Your task to perform on an android device: Go to Google Image 0: 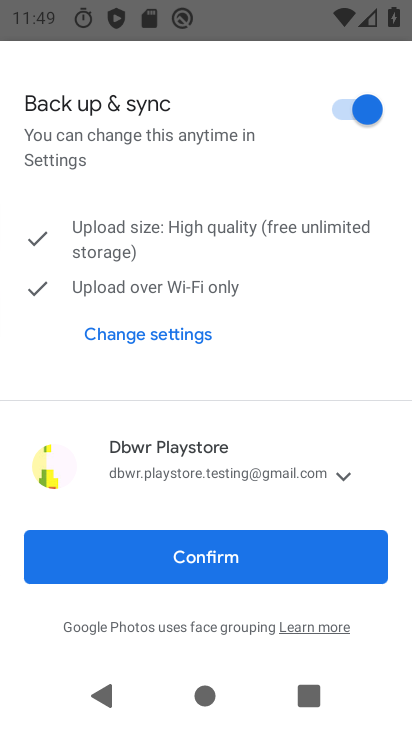
Step 0: press home button
Your task to perform on an android device: Go to Google Image 1: 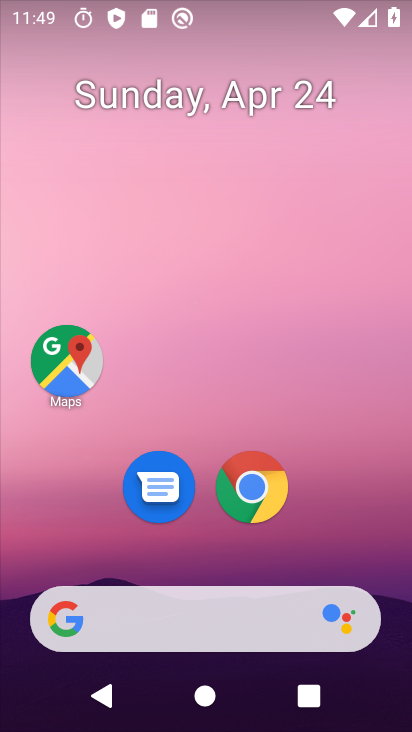
Step 1: click (107, 637)
Your task to perform on an android device: Go to Google Image 2: 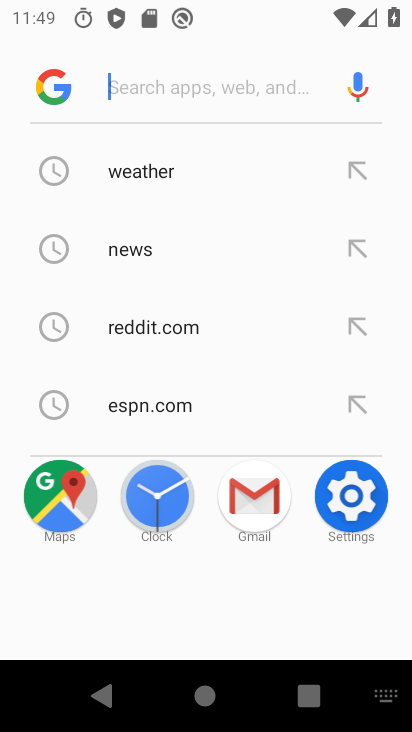
Step 2: type "google"
Your task to perform on an android device: Go to Google Image 3: 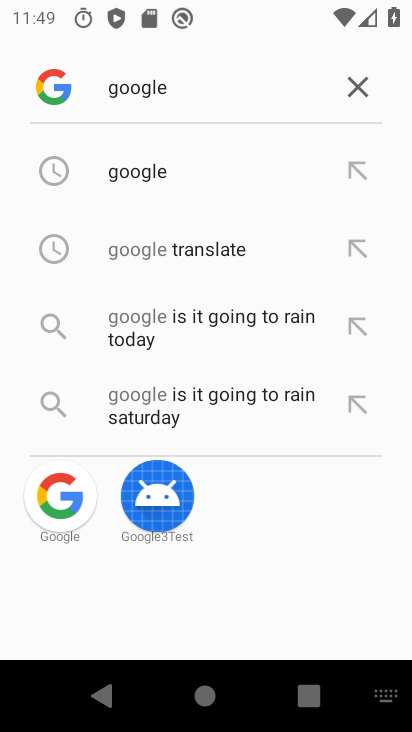
Step 3: click (74, 497)
Your task to perform on an android device: Go to Google Image 4: 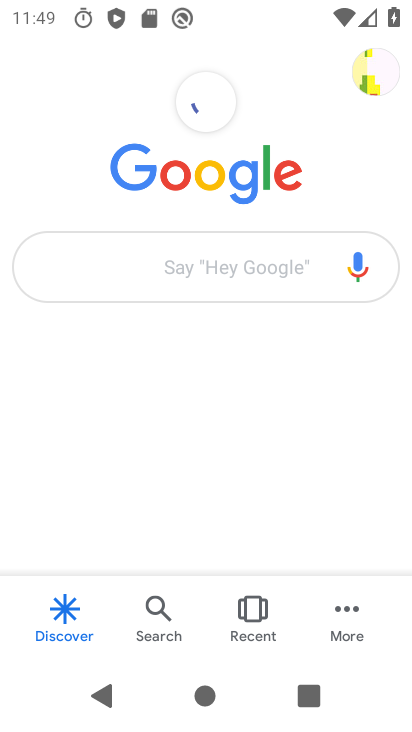
Step 4: task complete